Your task to perform on an android device: clear all cookies in the chrome app Image 0: 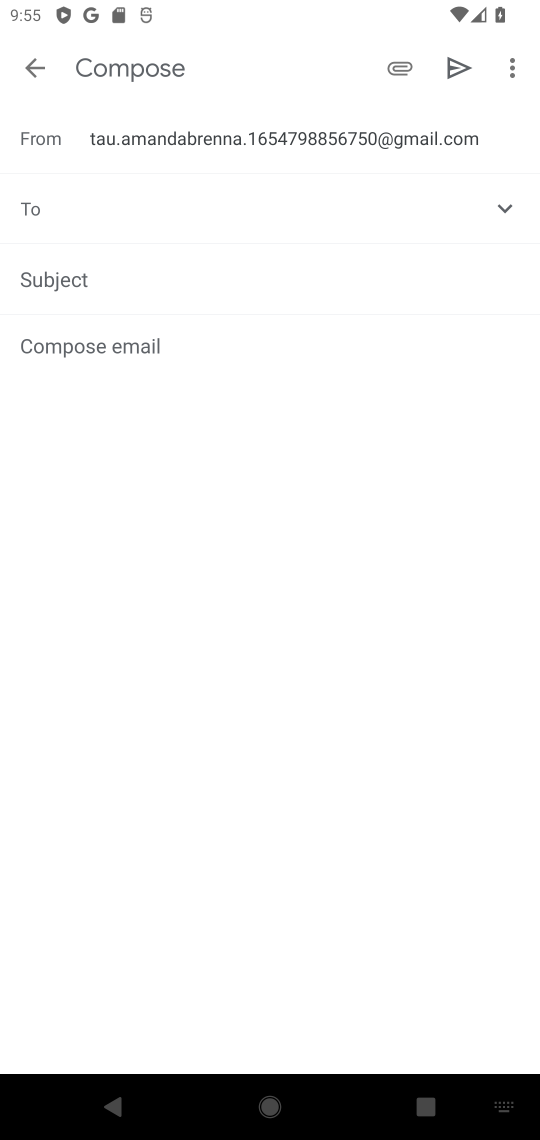
Step 0: press home button
Your task to perform on an android device: clear all cookies in the chrome app Image 1: 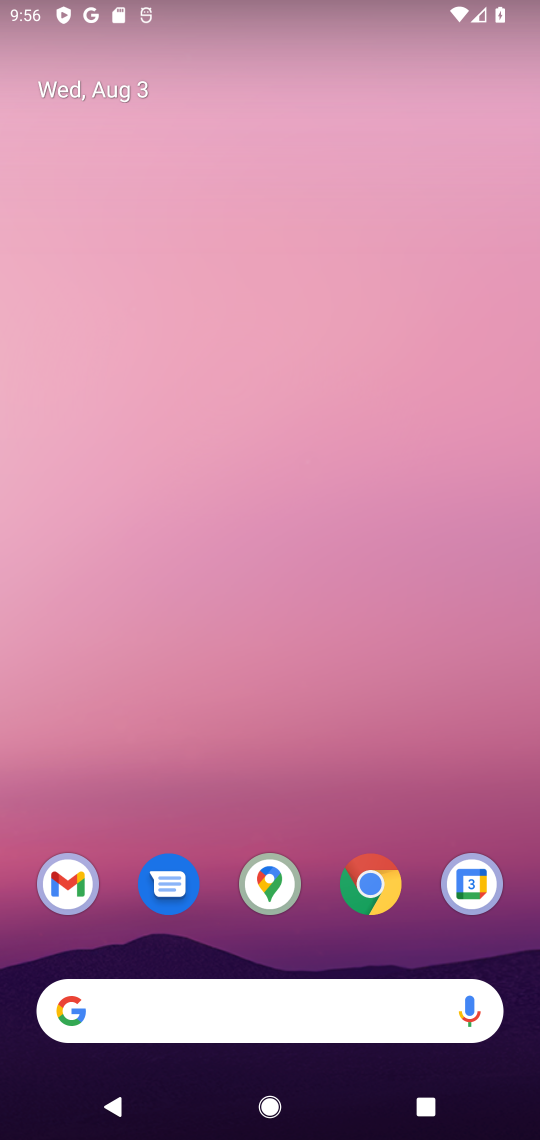
Step 1: click (364, 884)
Your task to perform on an android device: clear all cookies in the chrome app Image 2: 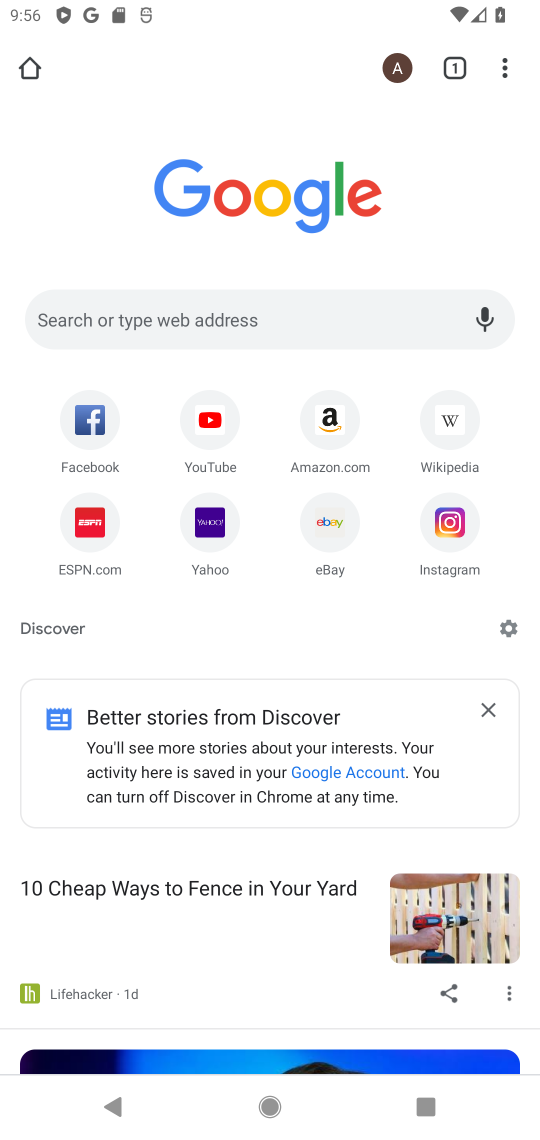
Step 2: drag from (507, 61) to (313, 670)
Your task to perform on an android device: clear all cookies in the chrome app Image 3: 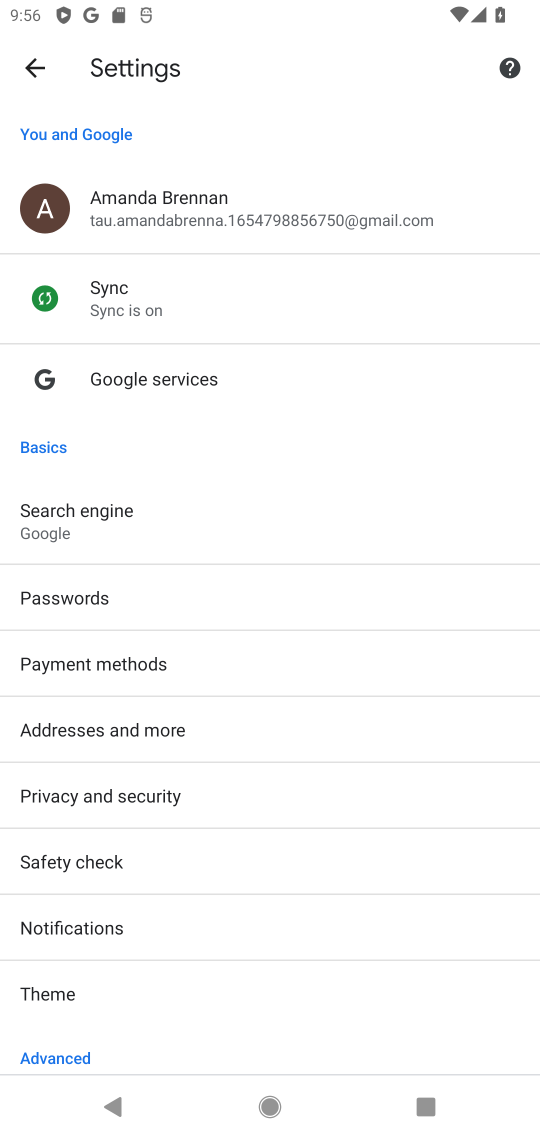
Step 3: click (124, 790)
Your task to perform on an android device: clear all cookies in the chrome app Image 4: 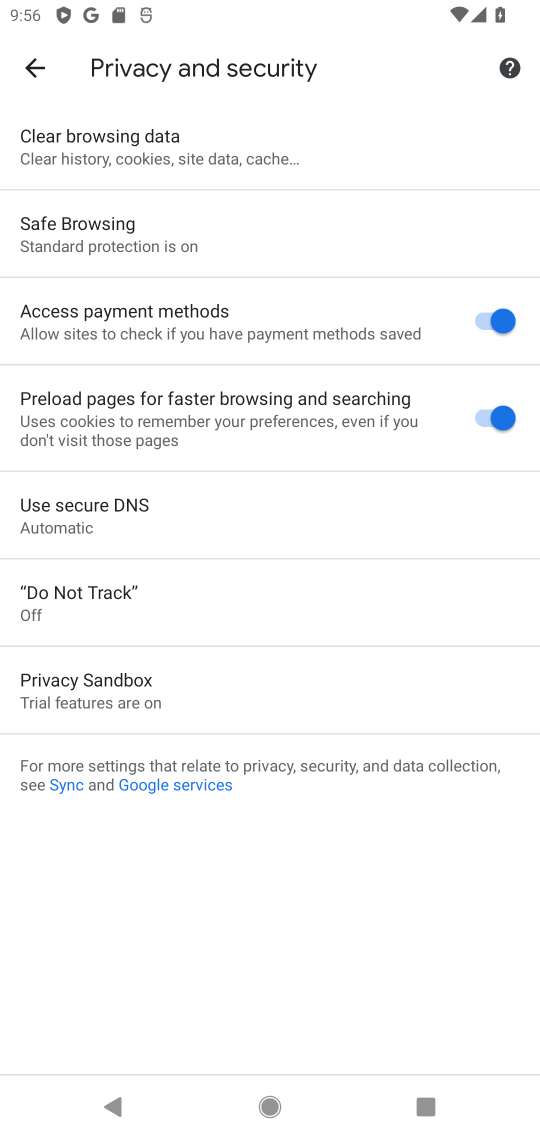
Step 4: click (127, 141)
Your task to perform on an android device: clear all cookies in the chrome app Image 5: 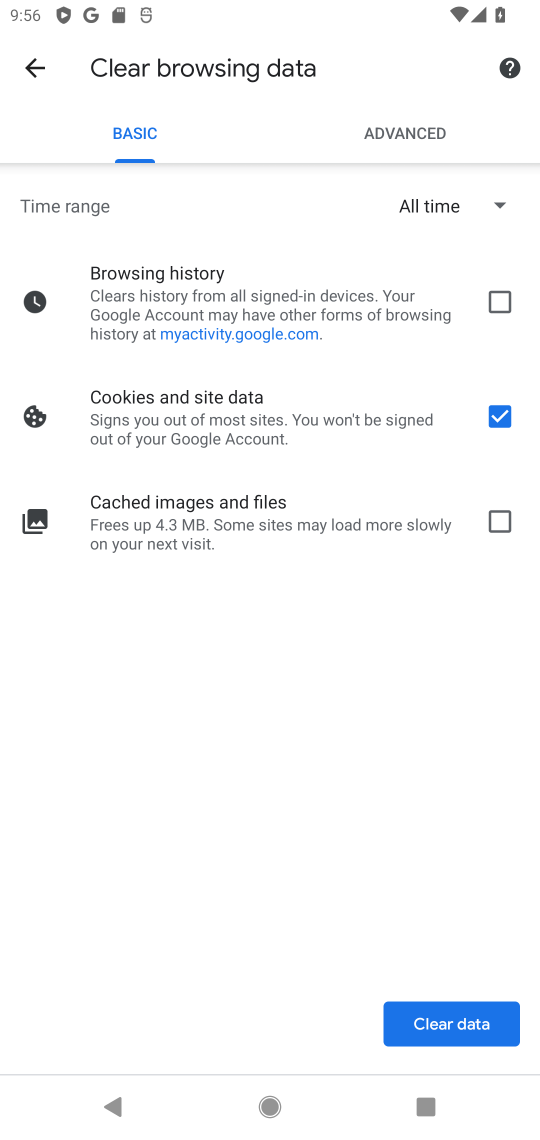
Step 5: click (457, 1019)
Your task to perform on an android device: clear all cookies in the chrome app Image 6: 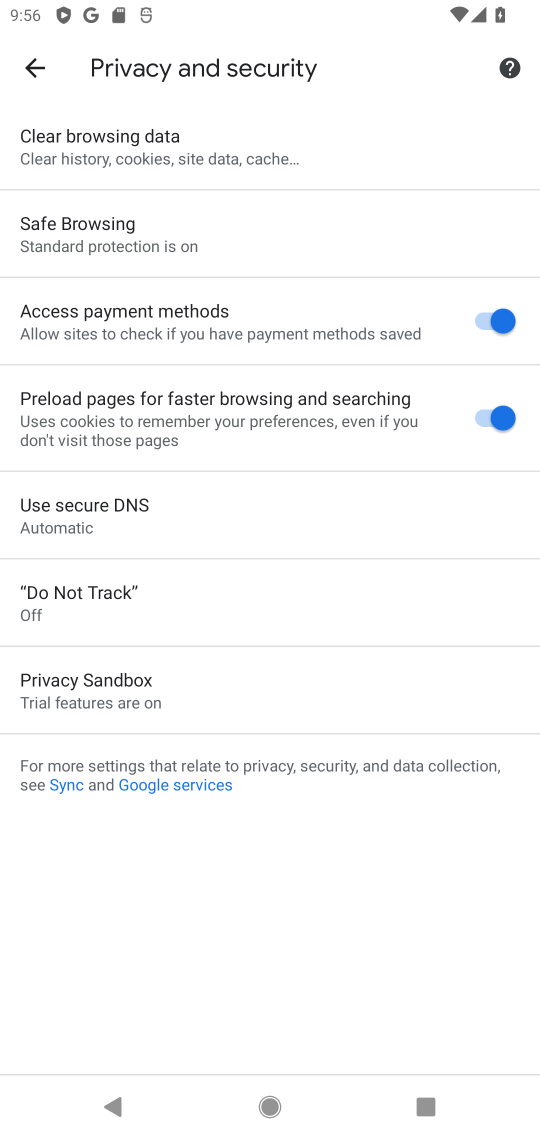
Step 6: task complete